Your task to perform on an android device: make emails show in primary in the gmail app Image 0: 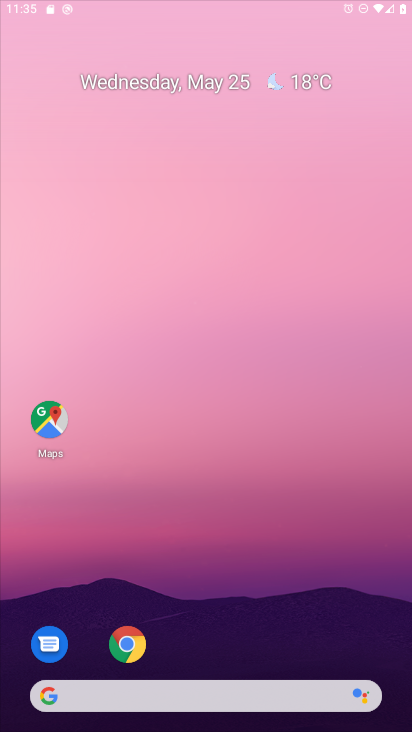
Step 0: press home button
Your task to perform on an android device: make emails show in primary in the gmail app Image 1: 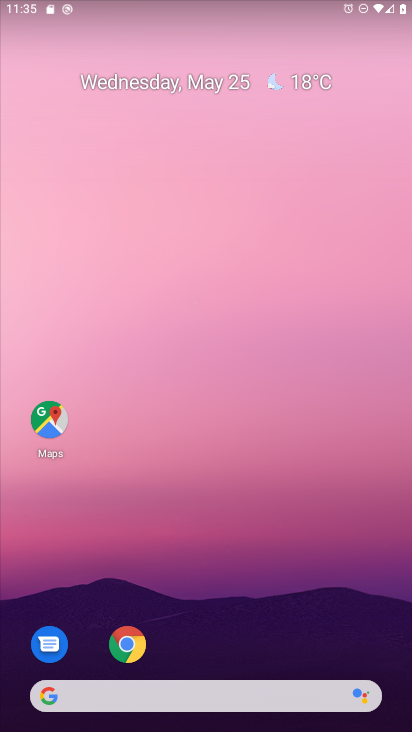
Step 1: drag from (224, 654) to (200, 102)
Your task to perform on an android device: make emails show in primary in the gmail app Image 2: 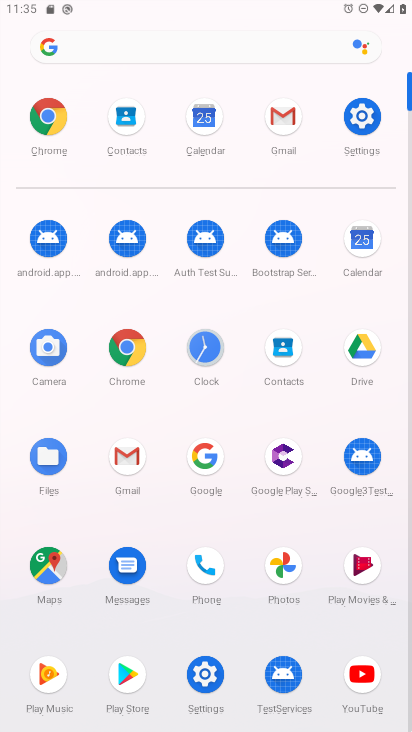
Step 2: click (122, 449)
Your task to perform on an android device: make emails show in primary in the gmail app Image 3: 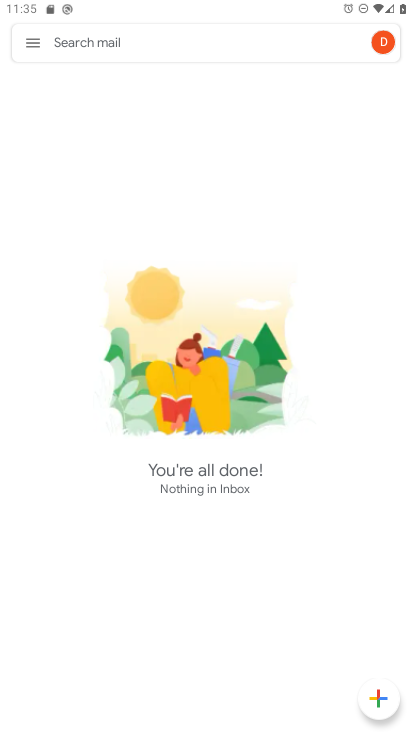
Step 3: click (33, 38)
Your task to perform on an android device: make emails show in primary in the gmail app Image 4: 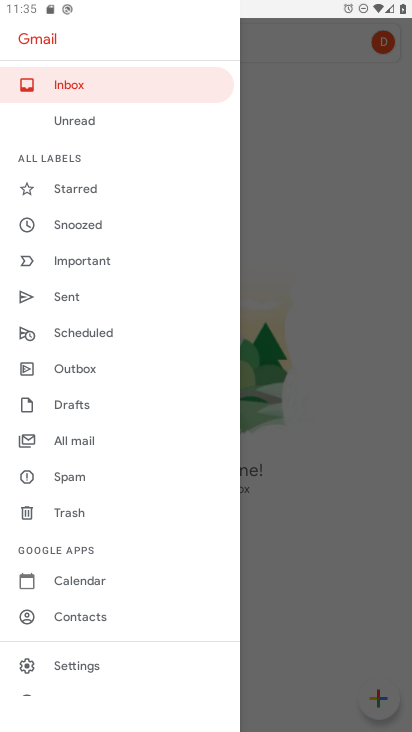
Step 4: click (110, 662)
Your task to perform on an android device: make emails show in primary in the gmail app Image 5: 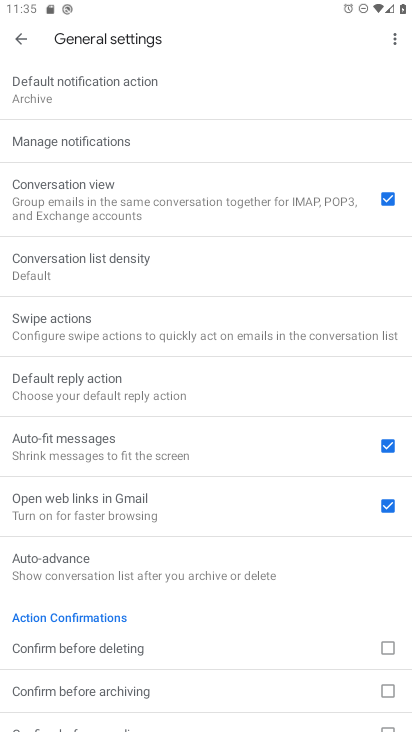
Step 5: drag from (175, 654) to (231, 558)
Your task to perform on an android device: make emails show in primary in the gmail app Image 6: 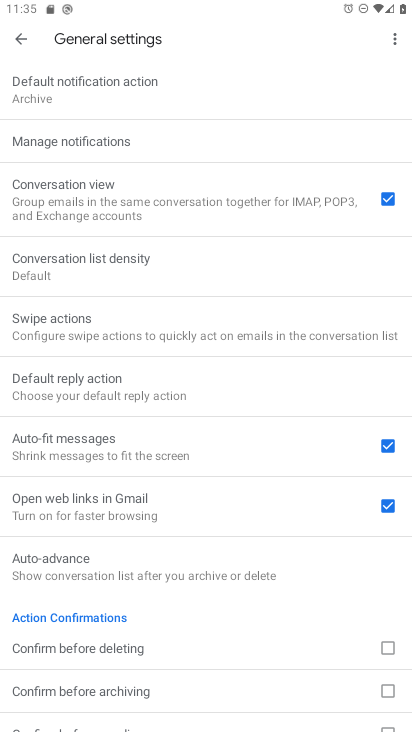
Step 6: click (24, 44)
Your task to perform on an android device: make emails show in primary in the gmail app Image 7: 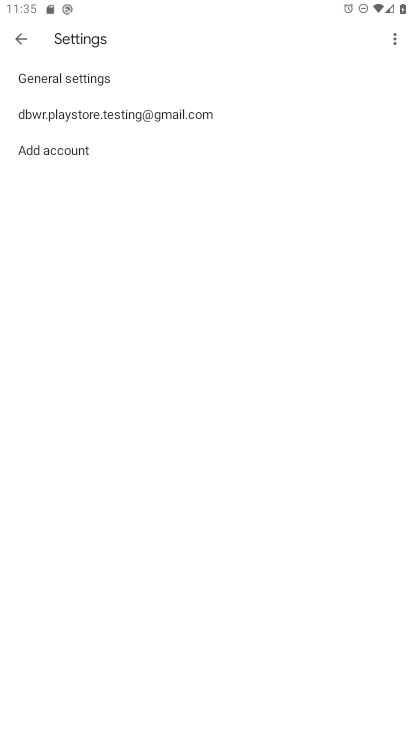
Step 7: click (207, 111)
Your task to perform on an android device: make emails show in primary in the gmail app Image 8: 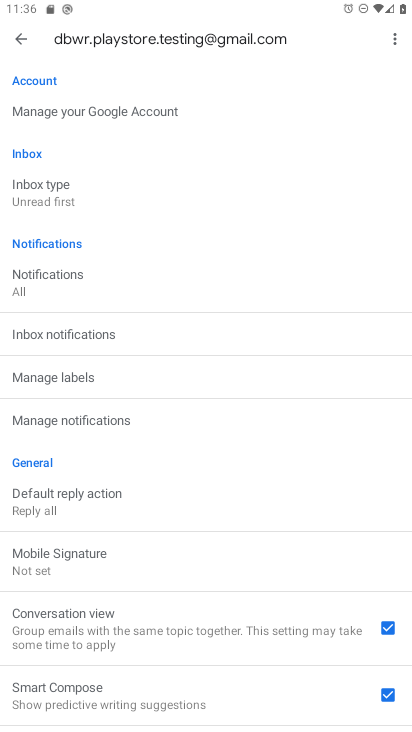
Step 8: click (80, 192)
Your task to perform on an android device: make emails show in primary in the gmail app Image 9: 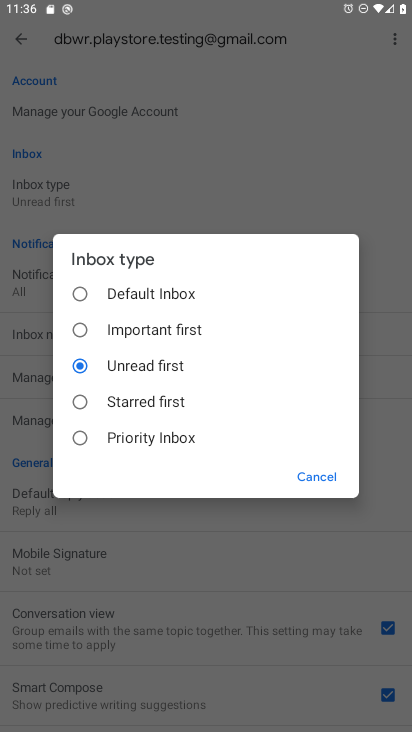
Step 9: click (77, 289)
Your task to perform on an android device: make emails show in primary in the gmail app Image 10: 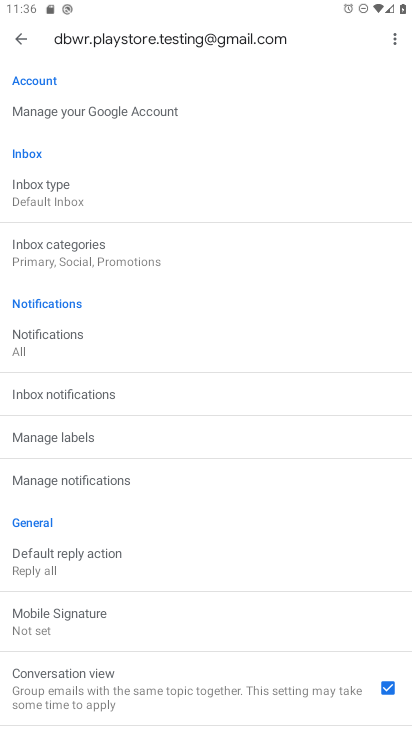
Step 10: task complete